Your task to perform on an android device: empty trash in google photos Image 0: 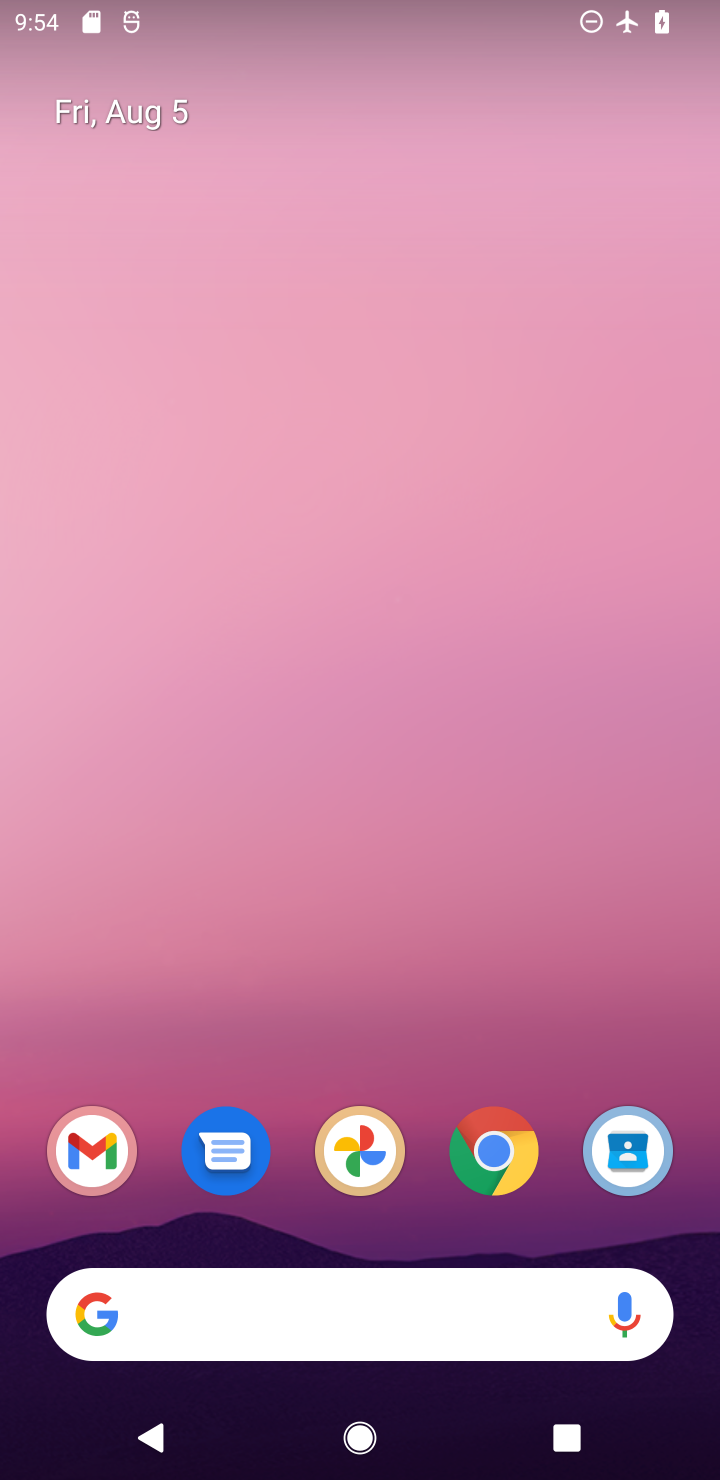
Step 0: drag from (316, 646) to (362, 104)
Your task to perform on an android device: empty trash in google photos Image 1: 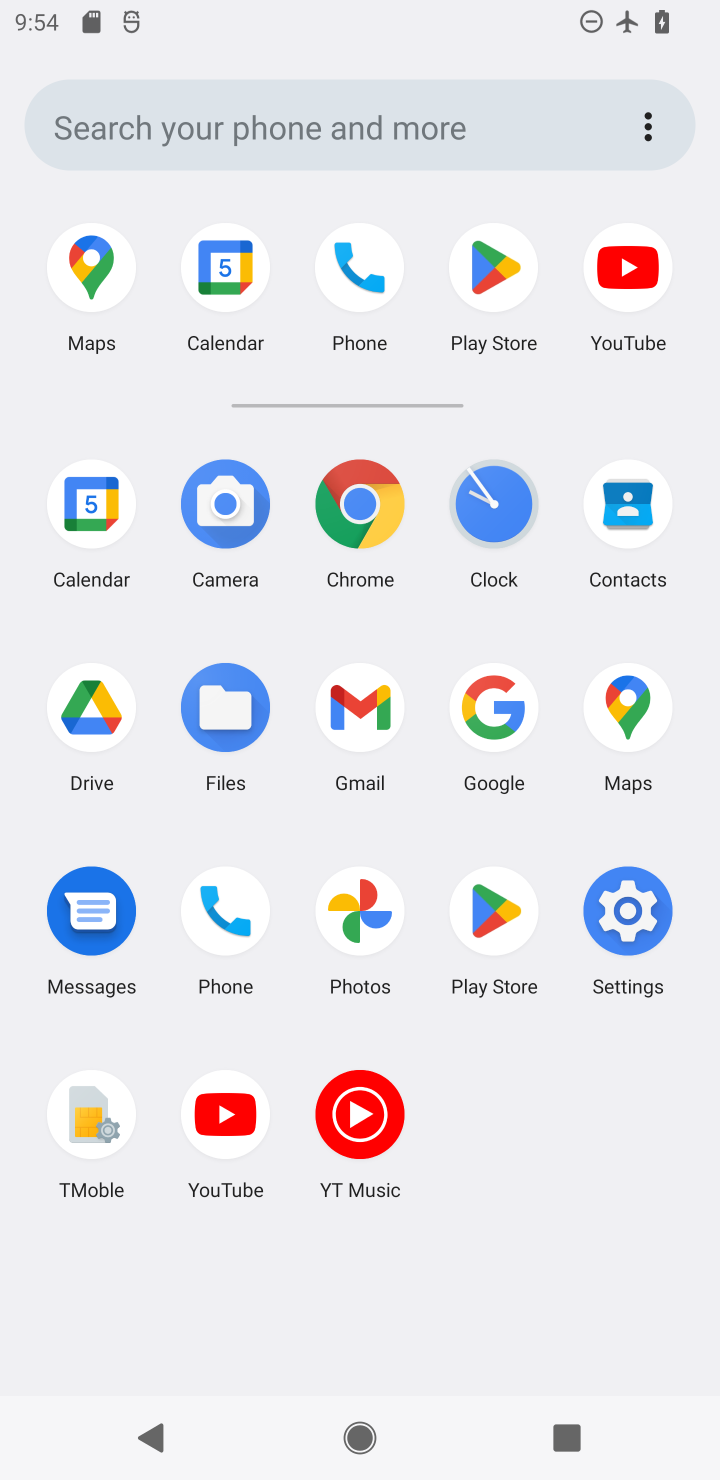
Step 1: click (375, 968)
Your task to perform on an android device: empty trash in google photos Image 2: 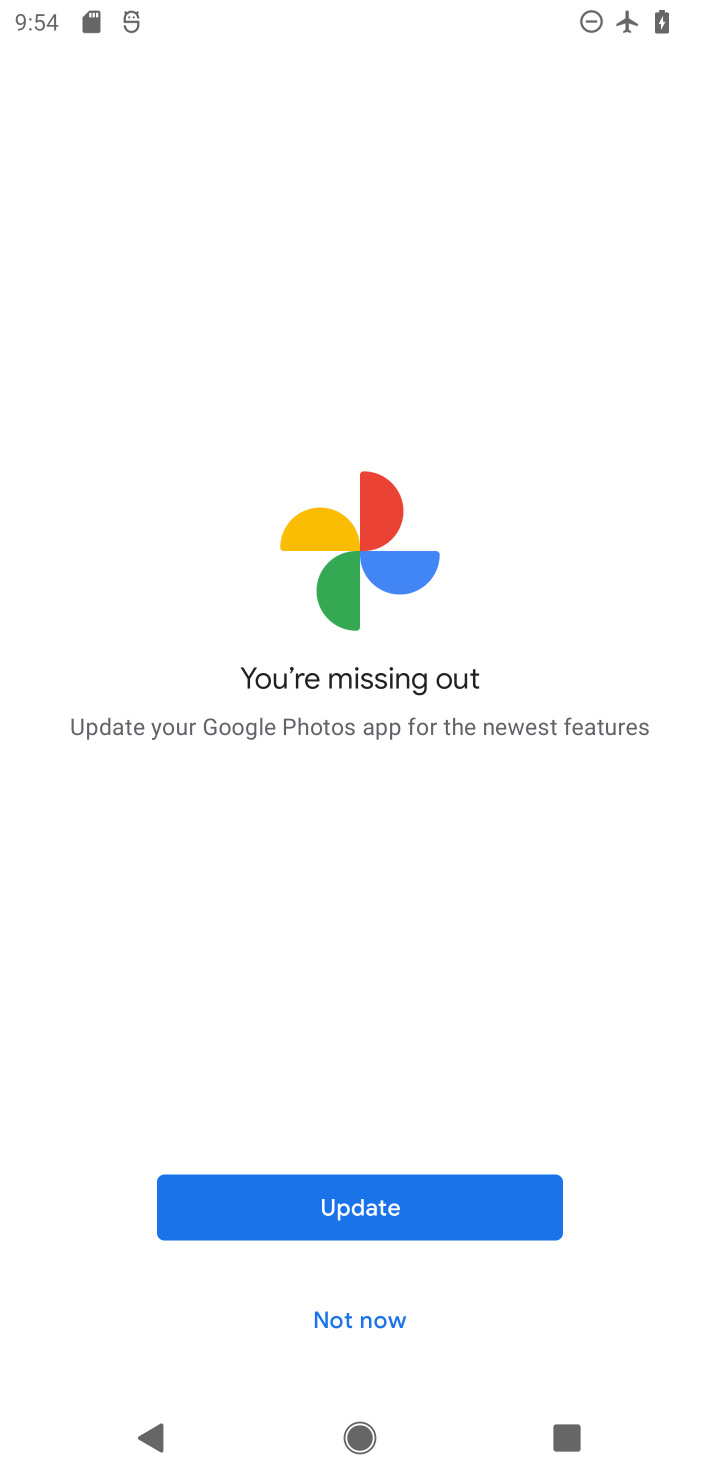
Step 2: click (345, 1325)
Your task to perform on an android device: empty trash in google photos Image 3: 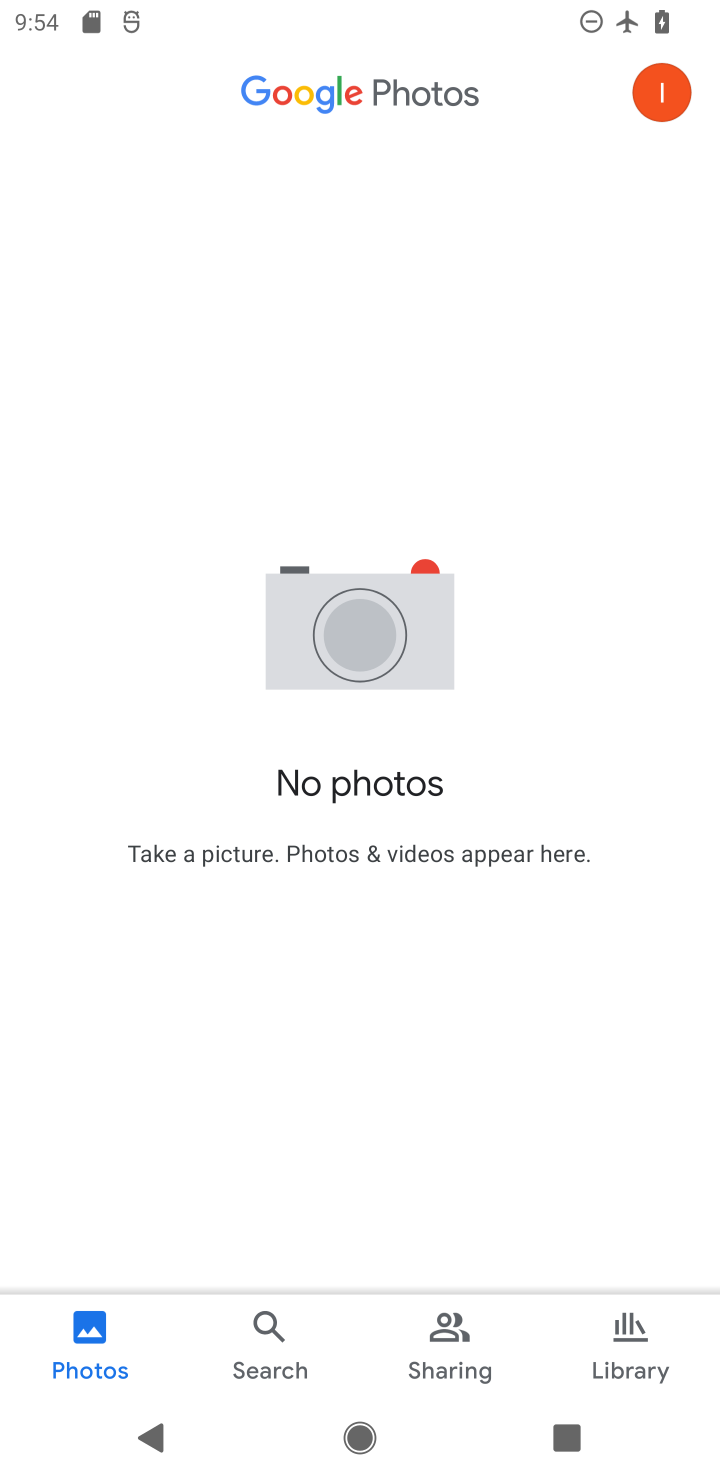
Step 3: click (626, 1325)
Your task to perform on an android device: empty trash in google photos Image 4: 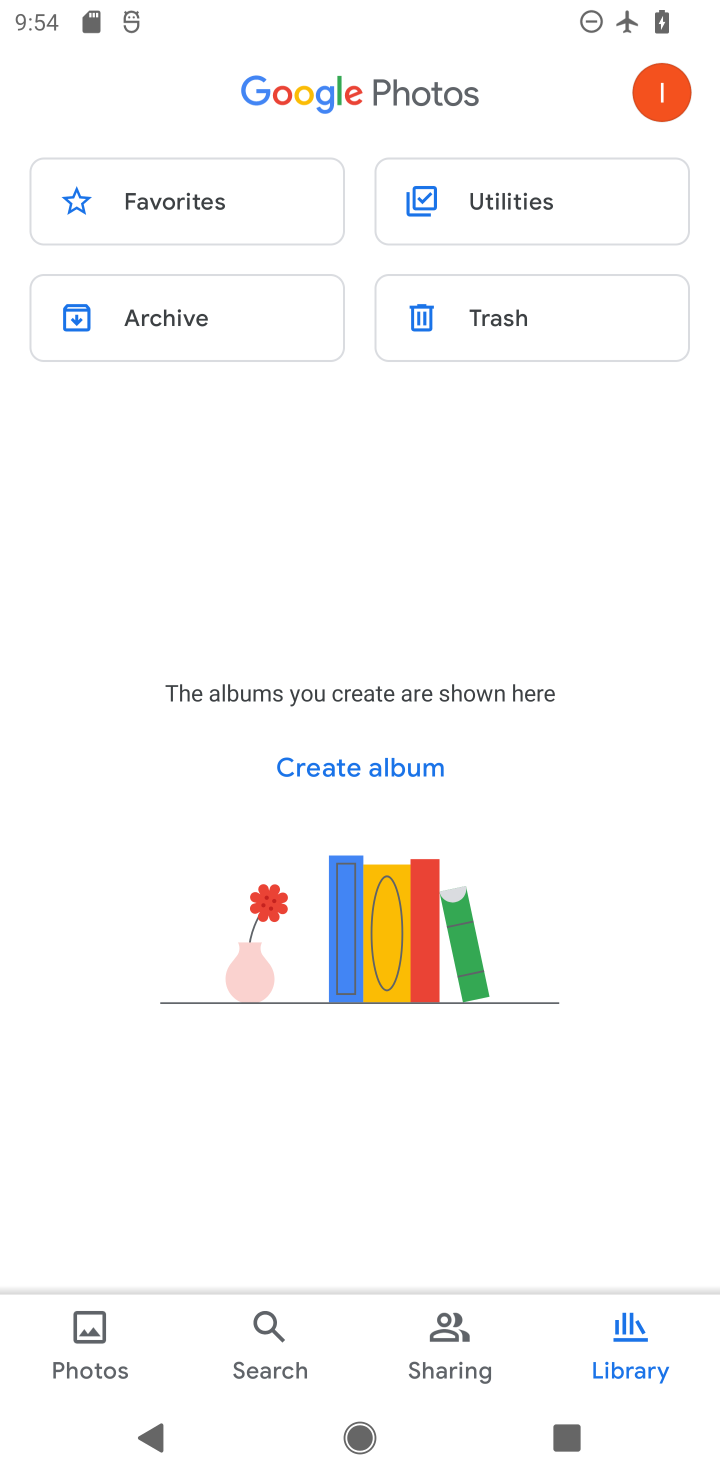
Step 4: click (459, 300)
Your task to perform on an android device: empty trash in google photos Image 5: 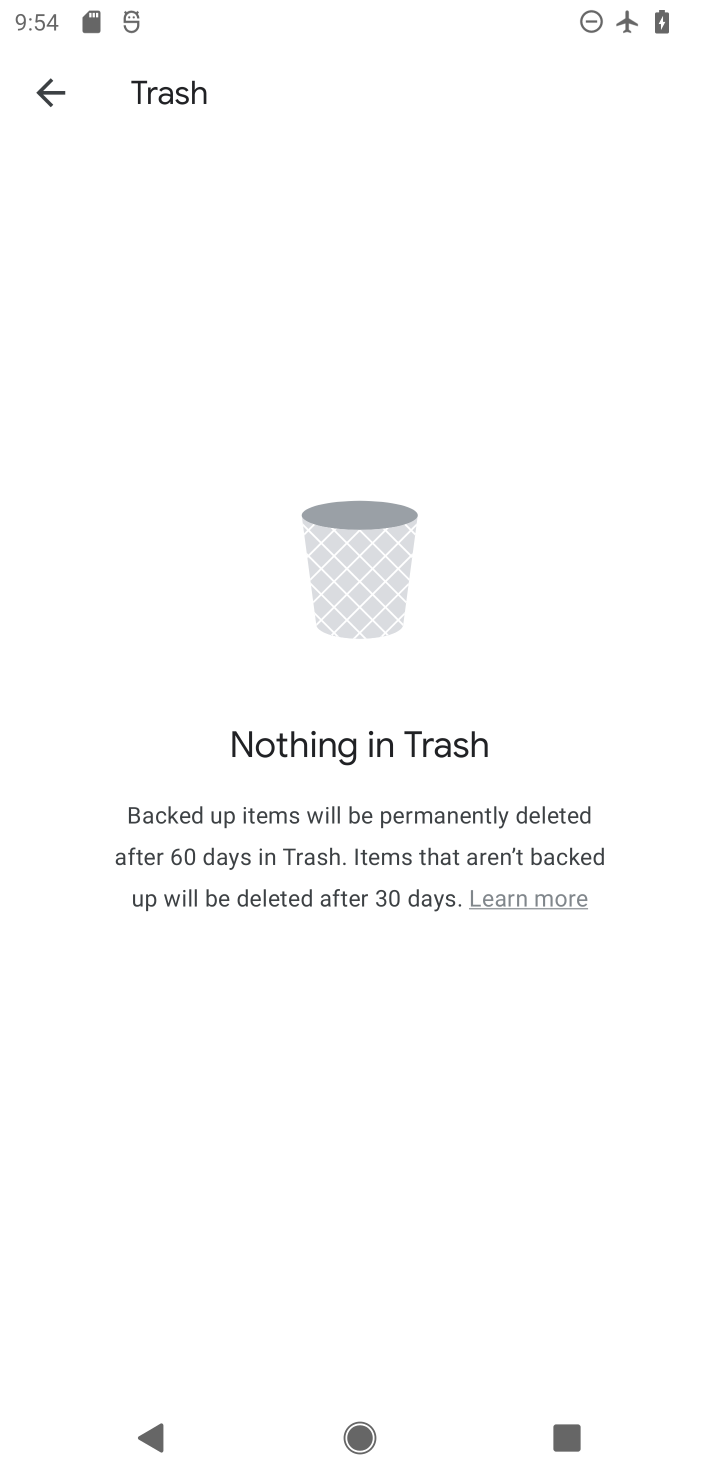
Step 5: task complete